Your task to perform on an android device: search for starred emails in the gmail app Image 0: 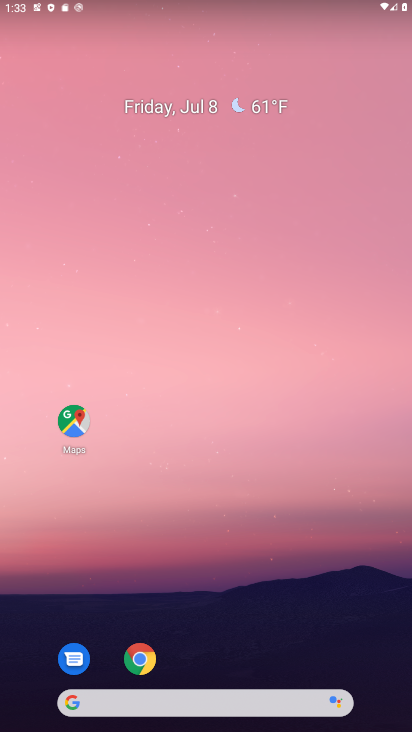
Step 0: drag from (204, 695) to (188, 183)
Your task to perform on an android device: search for starred emails in the gmail app Image 1: 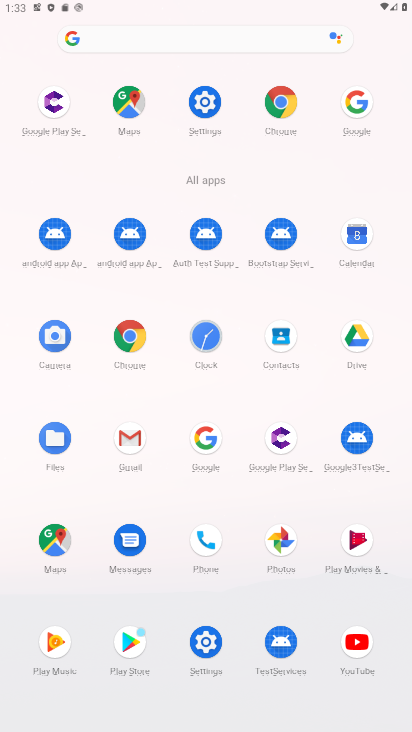
Step 1: click (132, 443)
Your task to perform on an android device: search for starred emails in the gmail app Image 2: 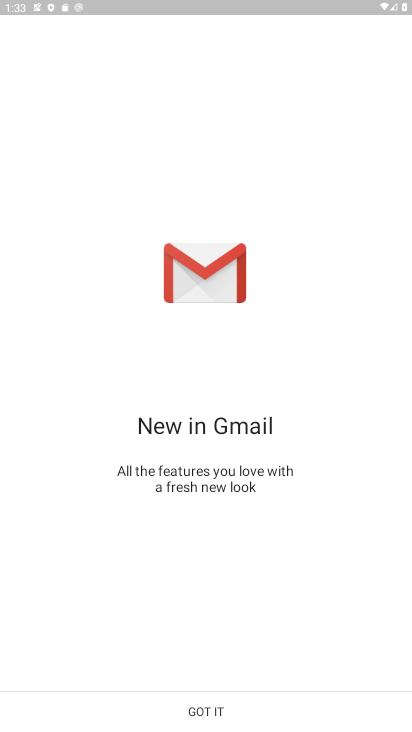
Step 2: click (233, 704)
Your task to perform on an android device: search for starred emails in the gmail app Image 3: 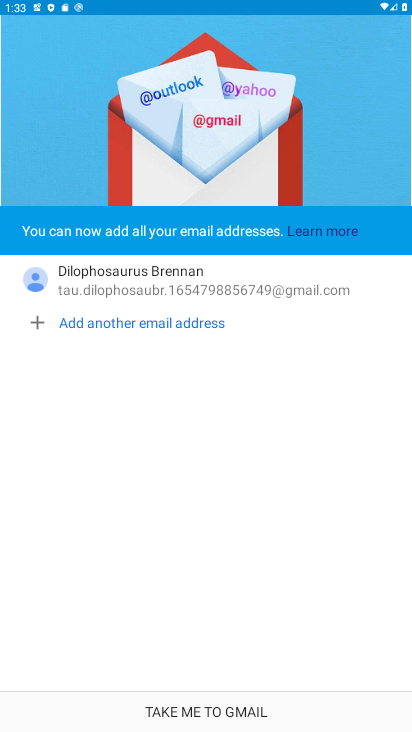
Step 3: click (271, 717)
Your task to perform on an android device: search for starred emails in the gmail app Image 4: 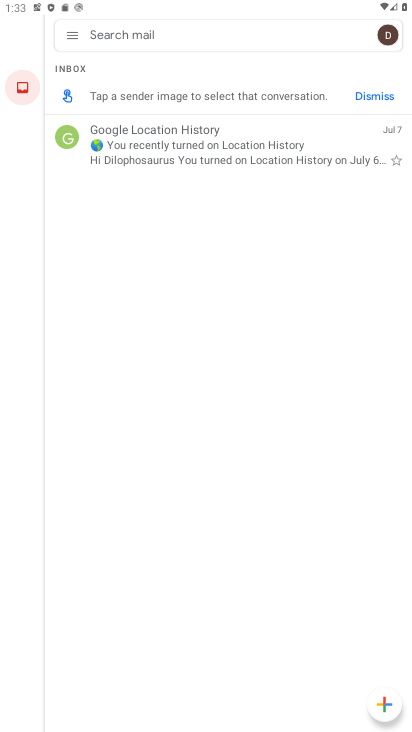
Step 4: click (65, 40)
Your task to perform on an android device: search for starred emails in the gmail app Image 5: 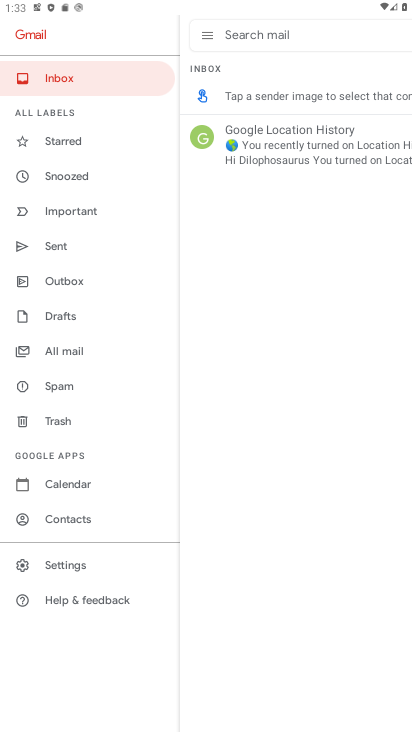
Step 5: click (68, 142)
Your task to perform on an android device: search for starred emails in the gmail app Image 6: 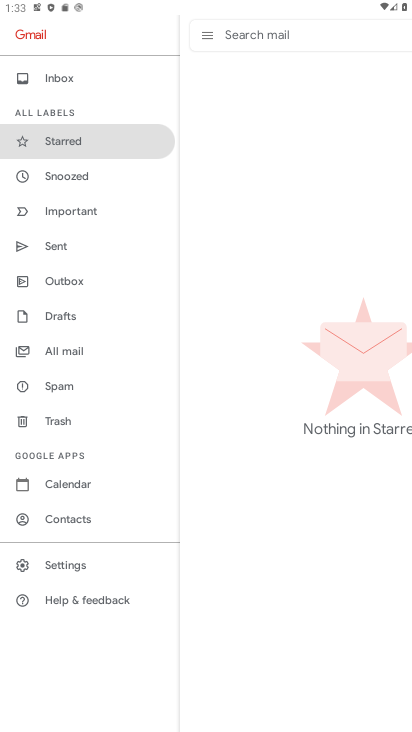
Step 6: task complete